Your task to perform on an android device: add a contact Image 0: 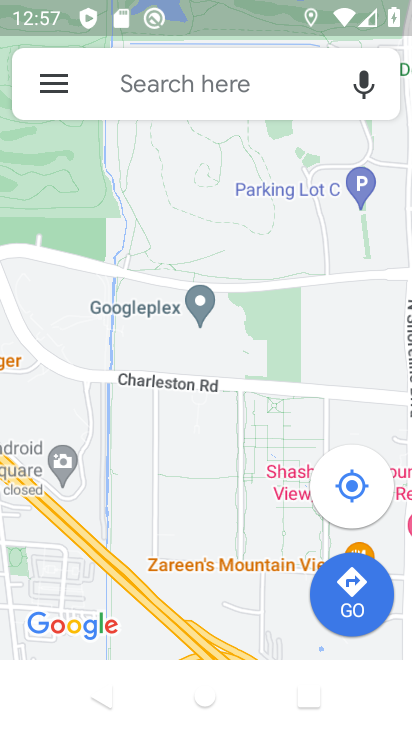
Step 0: press back button
Your task to perform on an android device: add a contact Image 1: 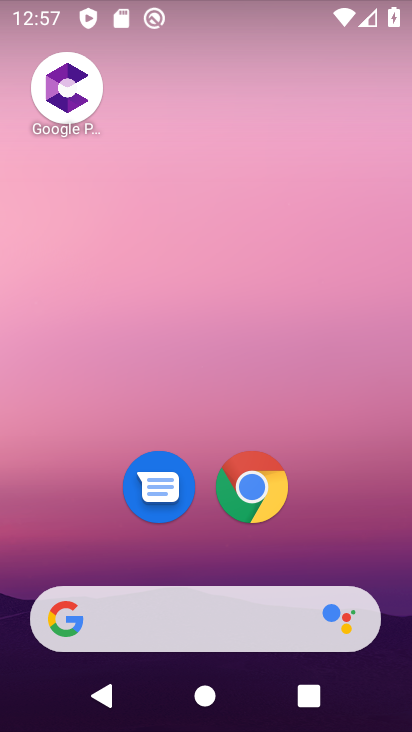
Step 1: drag from (296, 497) to (245, 52)
Your task to perform on an android device: add a contact Image 2: 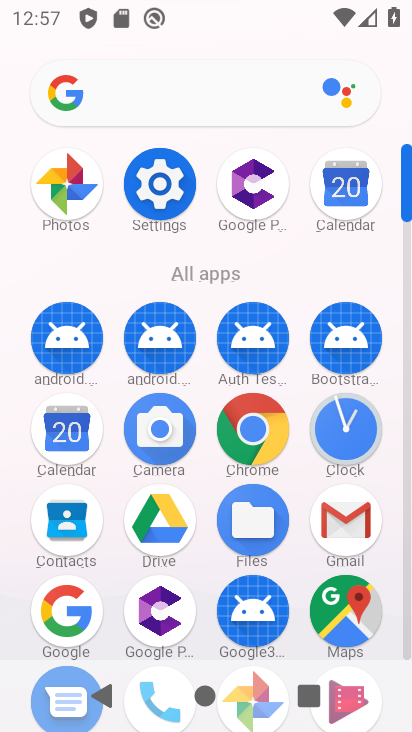
Step 2: drag from (8, 553) to (30, 224)
Your task to perform on an android device: add a contact Image 3: 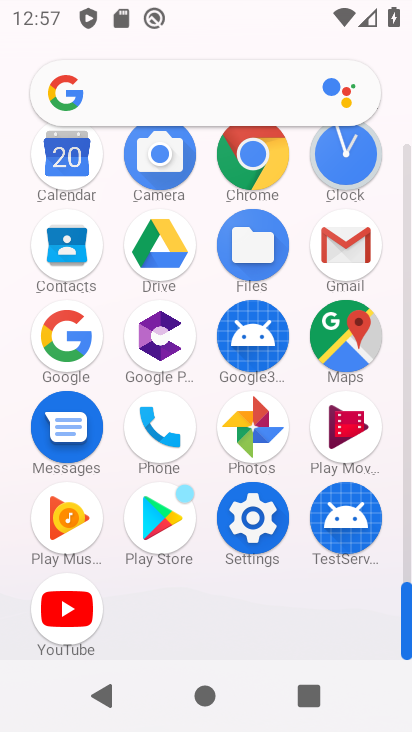
Step 3: click (58, 240)
Your task to perform on an android device: add a contact Image 4: 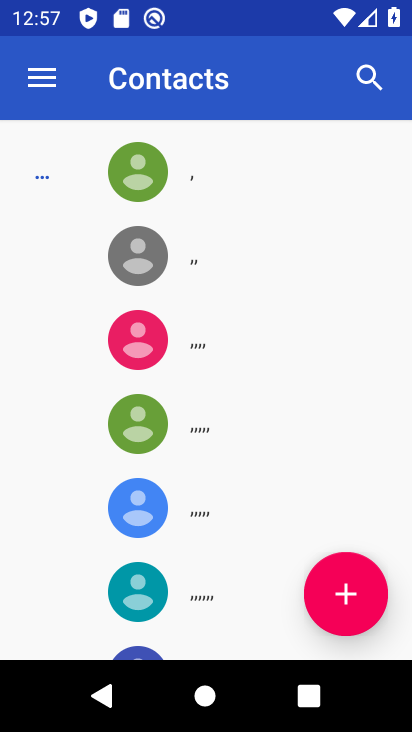
Step 4: drag from (213, 527) to (211, 228)
Your task to perform on an android device: add a contact Image 5: 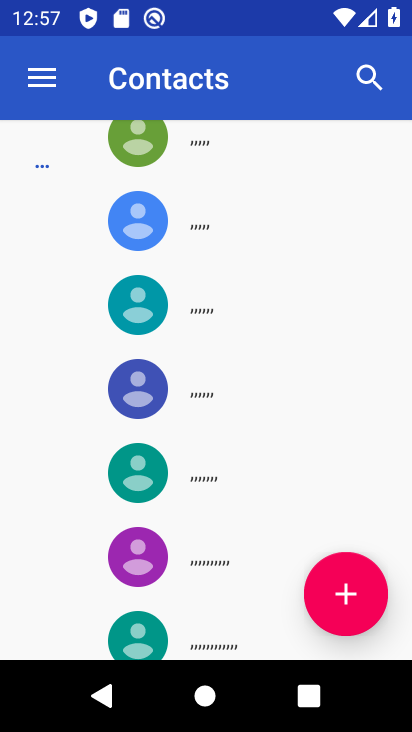
Step 5: click (374, 581)
Your task to perform on an android device: add a contact Image 6: 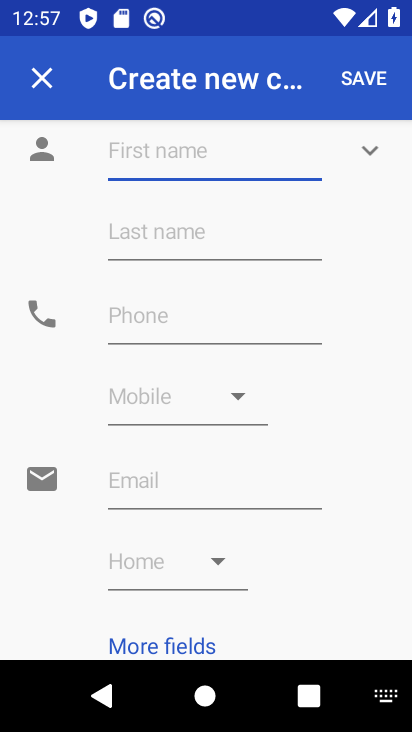
Step 6: type "DFGH"
Your task to perform on an android device: add a contact Image 7: 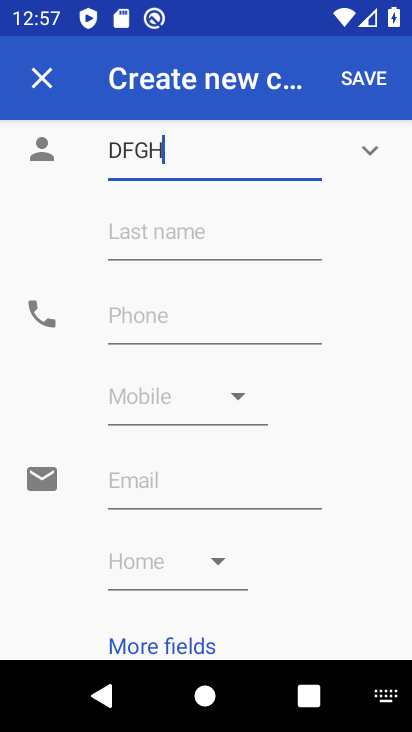
Step 7: type ""
Your task to perform on an android device: add a contact Image 8: 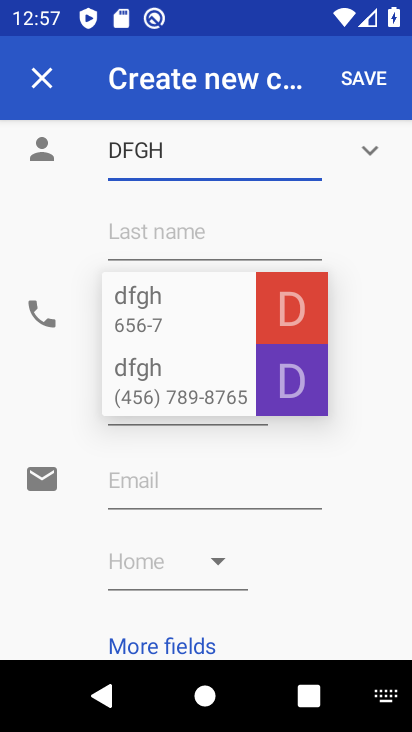
Step 8: click (152, 325)
Your task to perform on an android device: add a contact Image 9: 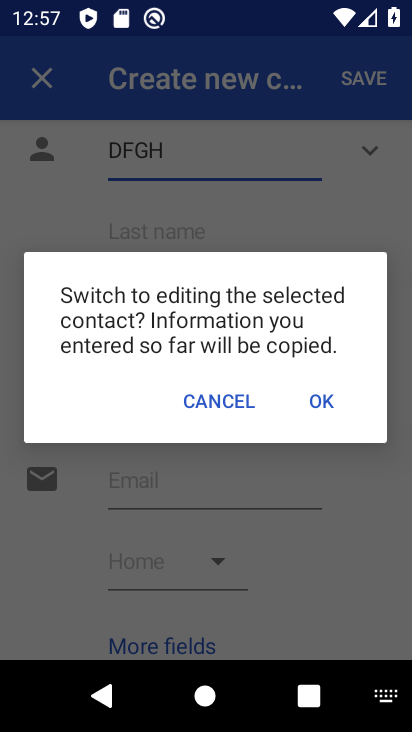
Step 9: click (326, 409)
Your task to perform on an android device: add a contact Image 10: 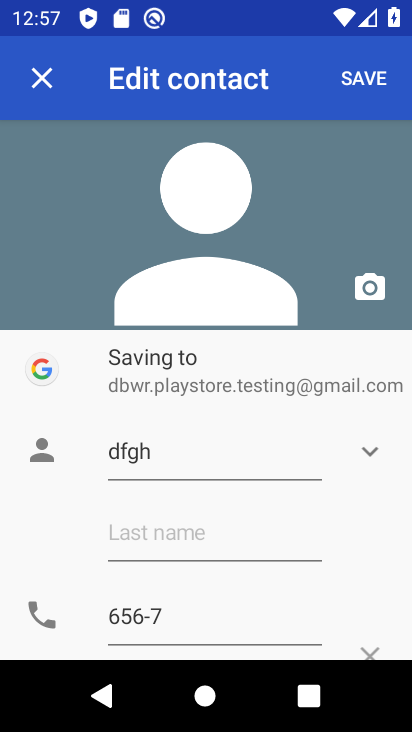
Step 10: click (357, 76)
Your task to perform on an android device: add a contact Image 11: 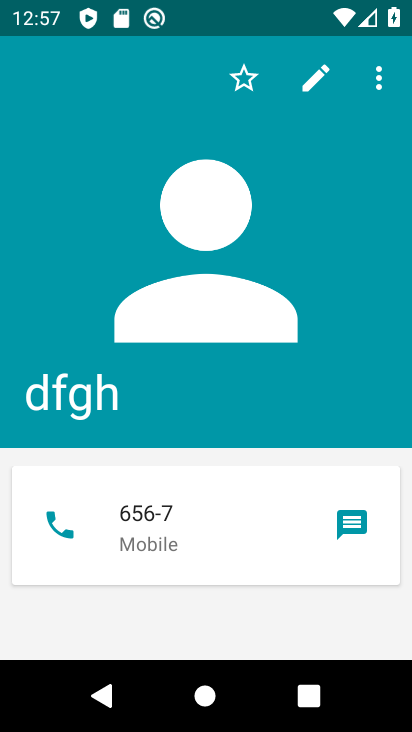
Step 11: task complete